Your task to perform on an android device: What is the recent news? Image 0: 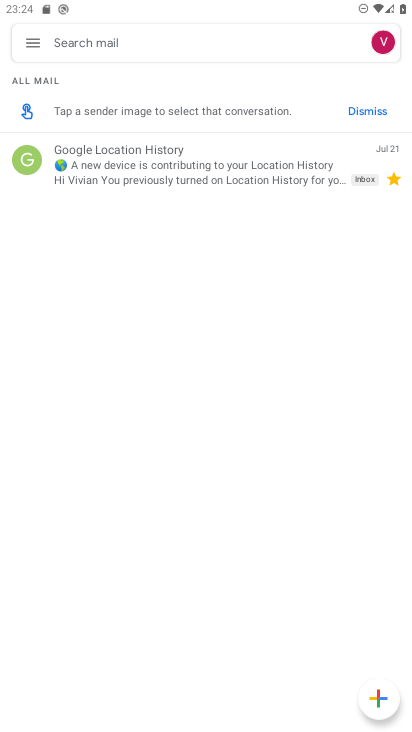
Step 0: press home button
Your task to perform on an android device: What is the recent news? Image 1: 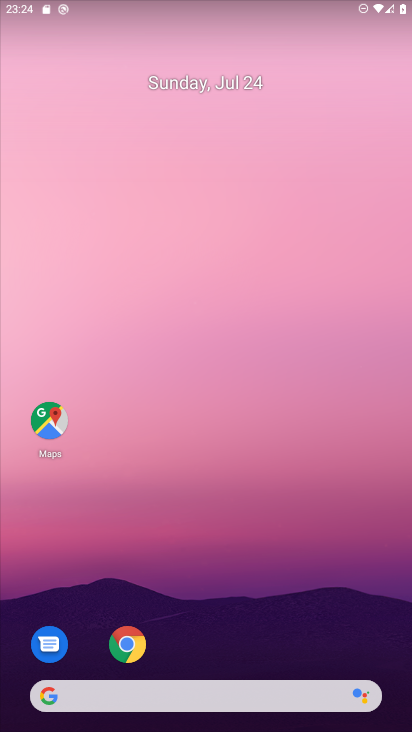
Step 1: task complete